Your task to perform on an android device: Go to Google maps Image 0: 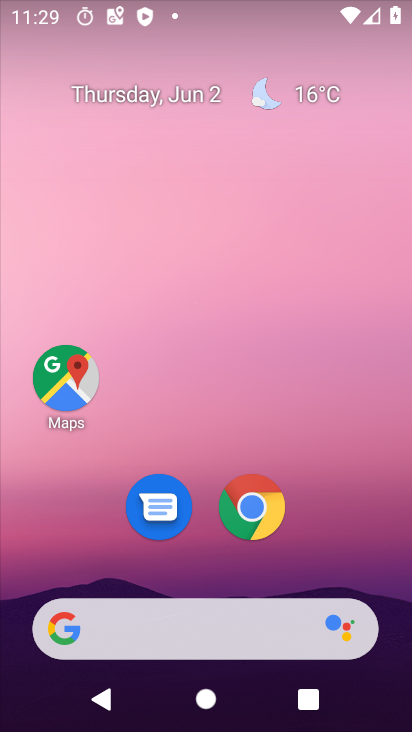
Step 0: click (339, 79)
Your task to perform on an android device: Go to Google maps Image 1: 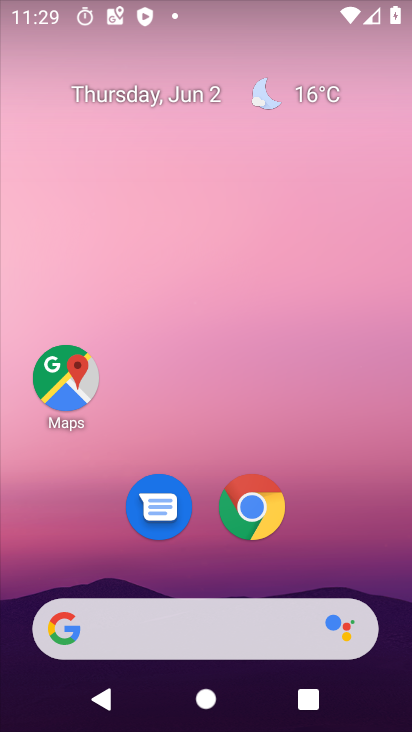
Step 1: drag from (381, 629) to (310, 52)
Your task to perform on an android device: Go to Google maps Image 2: 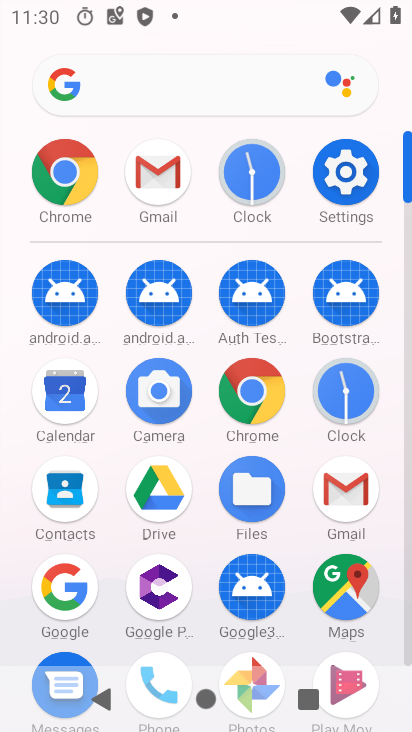
Step 2: click (335, 582)
Your task to perform on an android device: Go to Google maps Image 3: 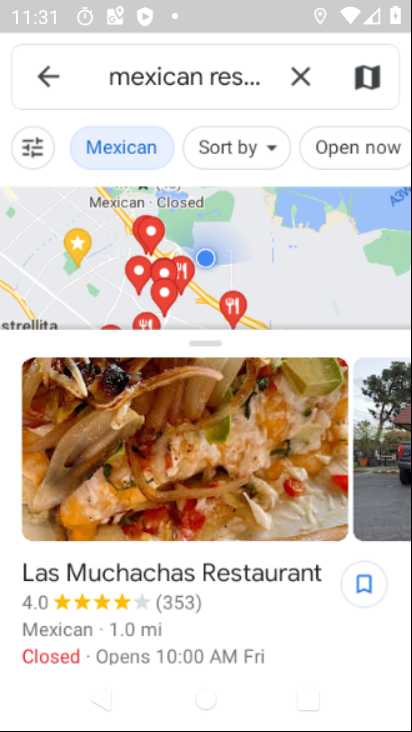
Step 3: click (300, 77)
Your task to perform on an android device: Go to Google maps Image 4: 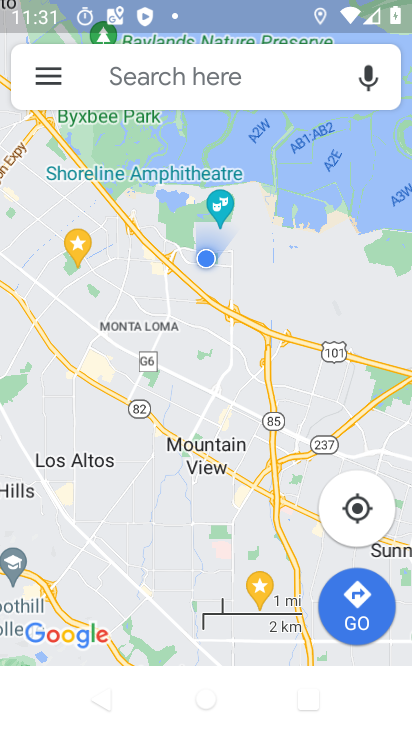
Step 4: task complete